Your task to perform on an android device: Show me popular videos on Youtube Image 0: 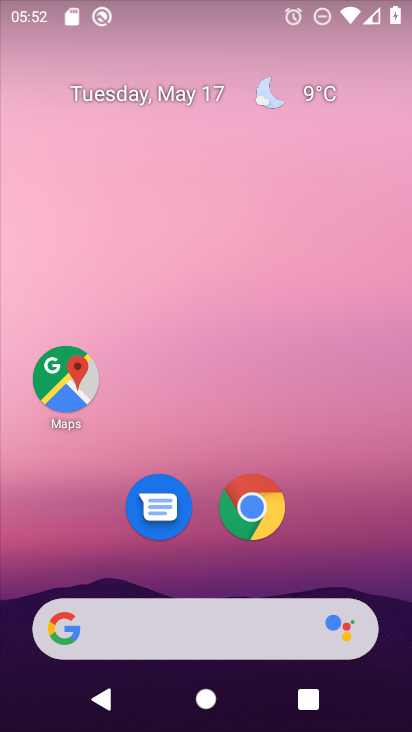
Step 0: drag from (327, 557) to (187, 92)
Your task to perform on an android device: Show me popular videos on Youtube Image 1: 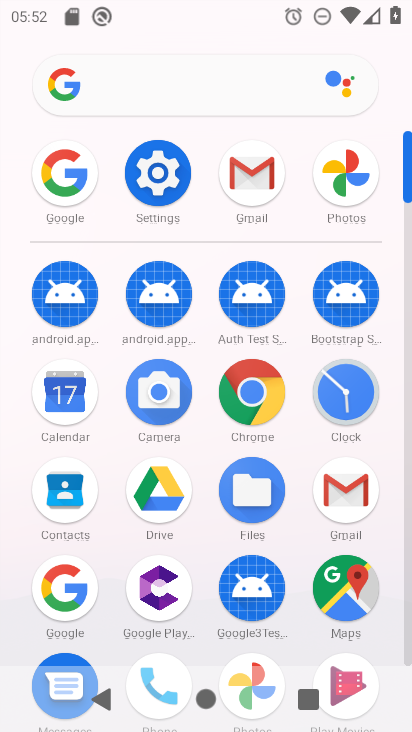
Step 1: drag from (198, 634) to (180, 150)
Your task to perform on an android device: Show me popular videos on Youtube Image 2: 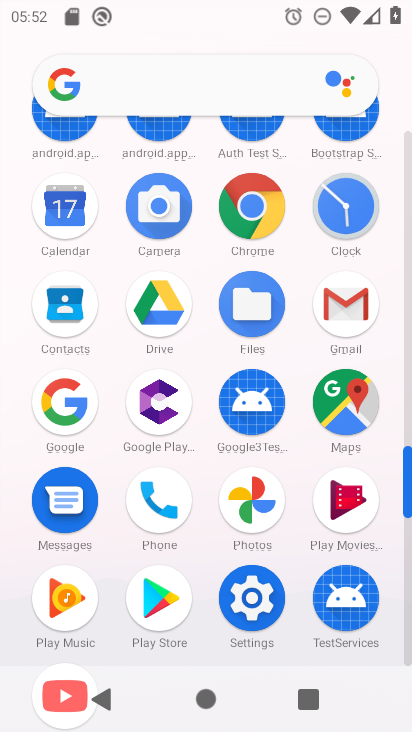
Step 2: drag from (126, 559) to (126, 169)
Your task to perform on an android device: Show me popular videos on Youtube Image 3: 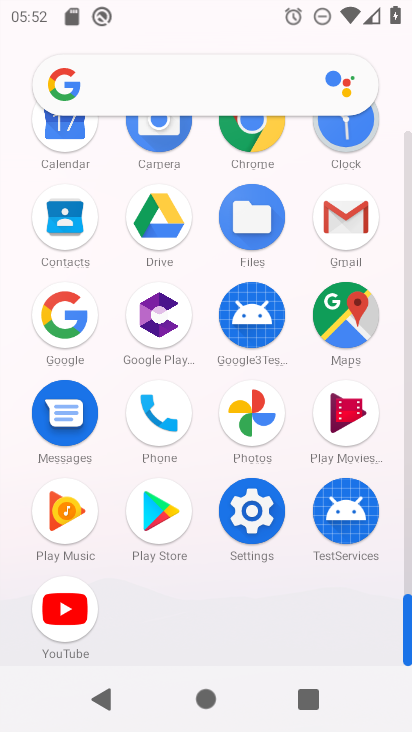
Step 3: click (83, 622)
Your task to perform on an android device: Show me popular videos on Youtube Image 4: 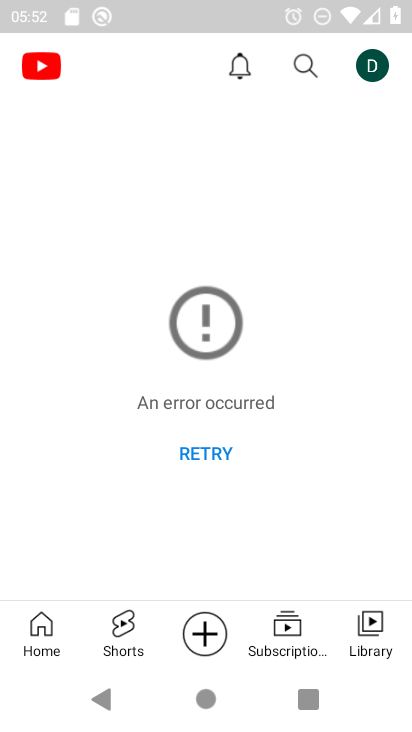
Step 4: click (216, 448)
Your task to perform on an android device: Show me popular videos on Youtube Image 5: 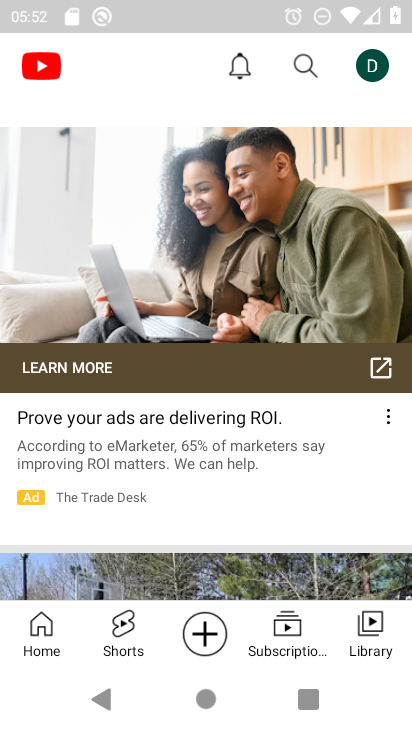
Step 5: drag from (108, 279) to (107, 507)
Your task to perform on an android device: Show me popular videos on Youtube Image 6: 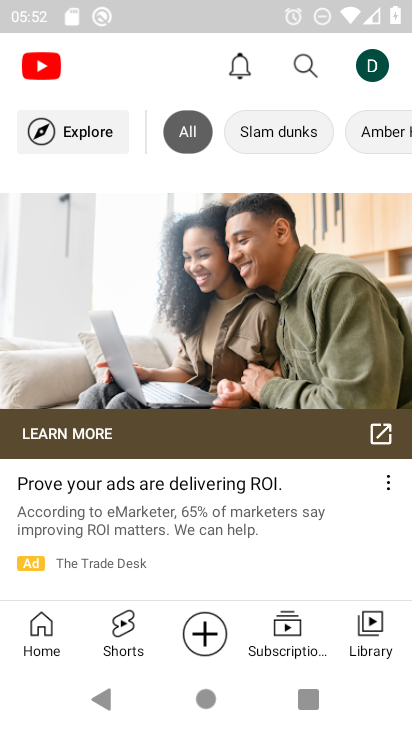
Step 6: click (77, 139)
Your task to perform on an android device: Show me popular videos on Youtube Image 7: 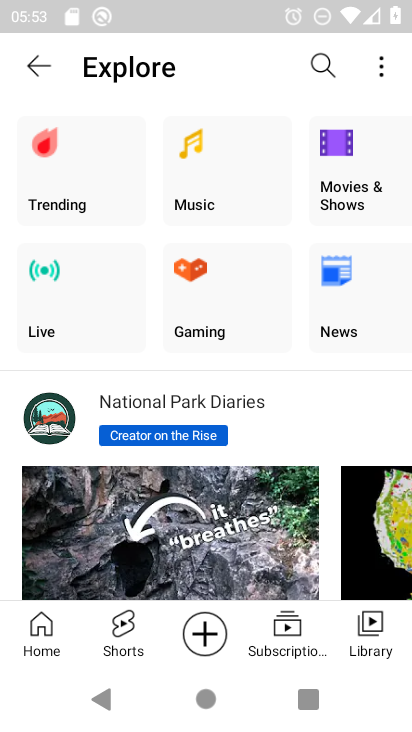
Step 7: click (71, 187)
Your task to perform on an android device: Show me popular videos on Youtube Image 8: 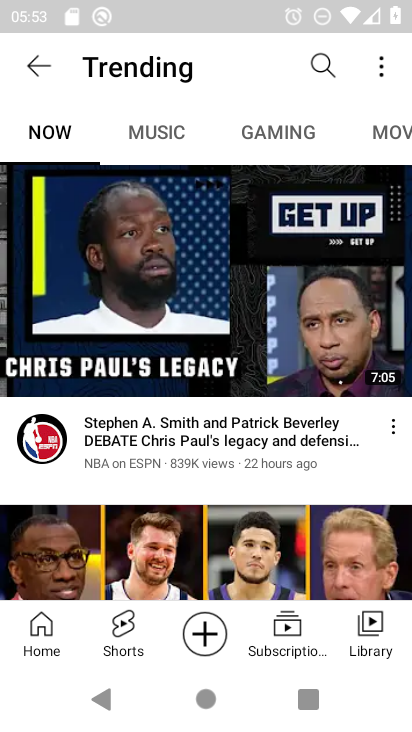
Step 8: task complete